Your task to perform on an android device: Go to wifi settings Image 0: 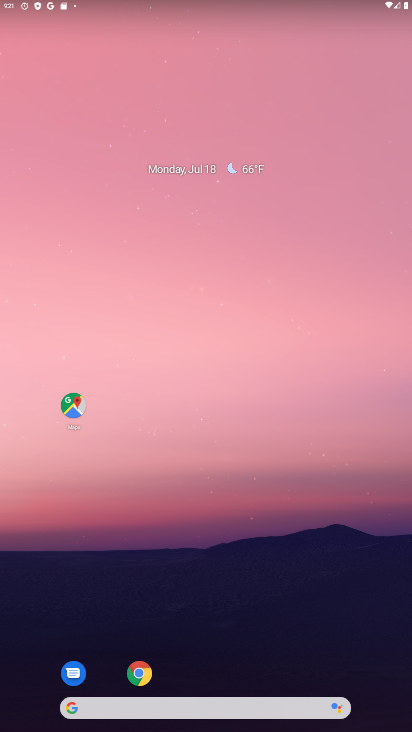
Step 0: drag from (194, 680) to (254, 85)
Your task to perform on an android device: Go to wifi settings Image 1: 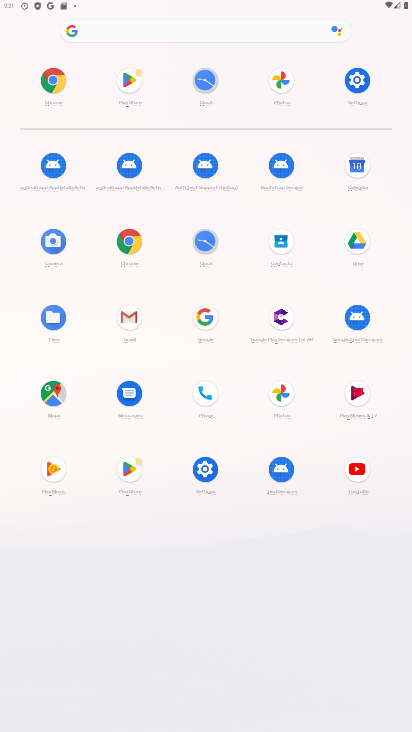
Step 1: click (353, 76)
Your task to perform on an android device: Go to wifi settings Image 2: 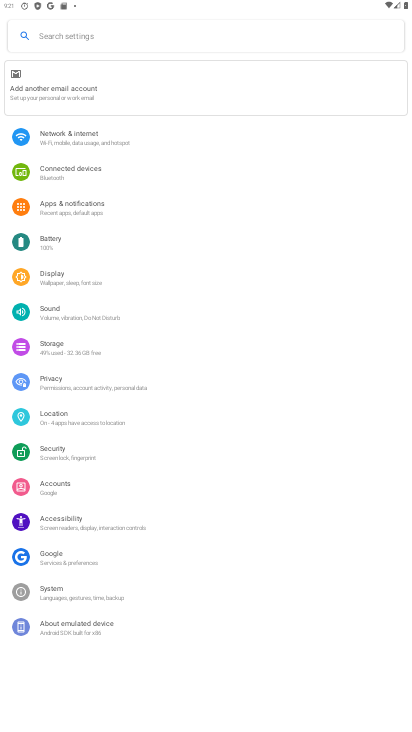
Step 2: click (86, 142)
Your task to perform on an android device: Go to wifi settings Image 3: 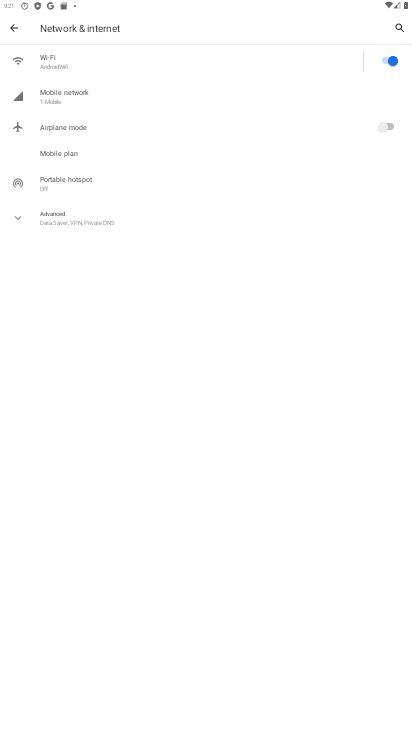
Step 3: click (84, 71)
Your task to perform on an android device: Go to wifi settings Image 4: 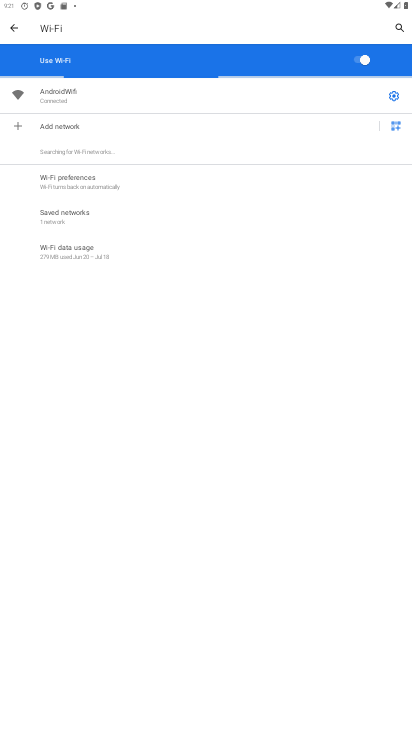
Step 4: click (85, 98)
Your task to perform on an android device: Go to wifi settings Image 5: 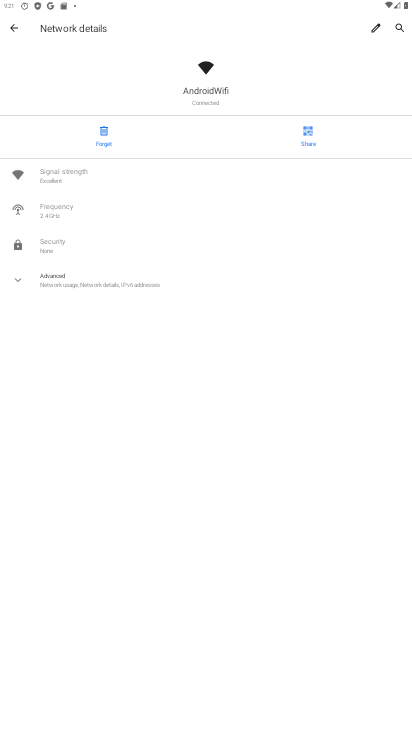
Step 5: task complete